Your task to perform on an android device: open app "TextNow: Call + Text Unlimited" (install if not already installed) and go to login screen Image 0: 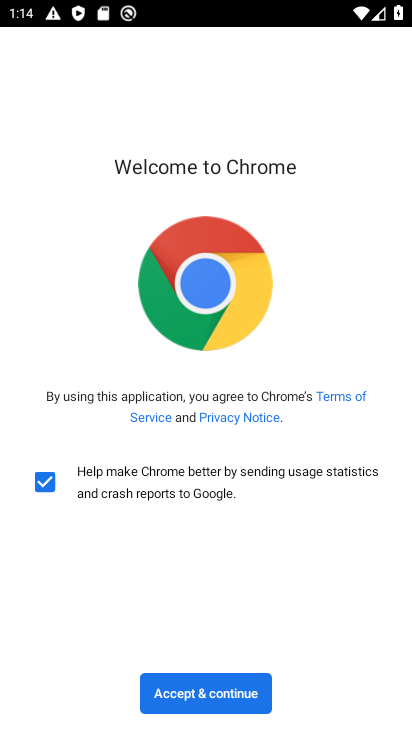
Step 0: click (199, 695)
Your task to perform on an android device: open app "TextNow: Call + Text Unlimited" (install if not already installed) and go to login screen Image 1: 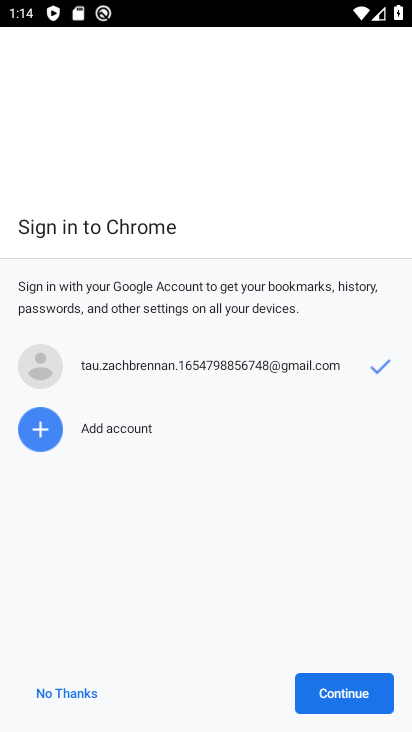
Step 1: click (345, 692)
Your task to perform on an android device: open app "TextNow: Call + Text Unlimited" (install if not already installed) and go to login screen Image 2: 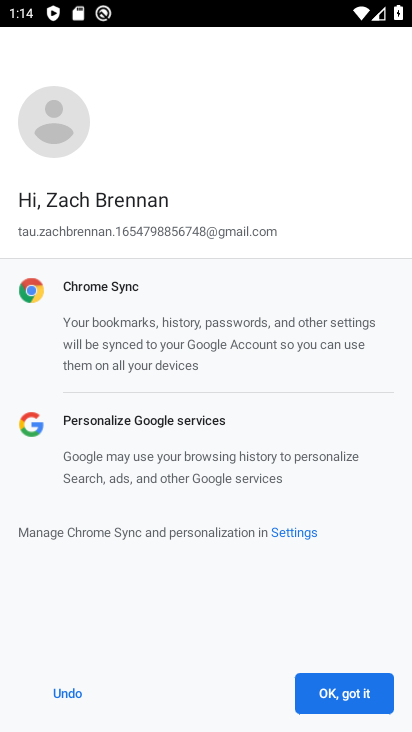
Step 2: click (345, 692)
Your task to perform on an android device: open app "TextNow: Call + Text Unlimited" (install if not already installed) and go to login screen Image 3: 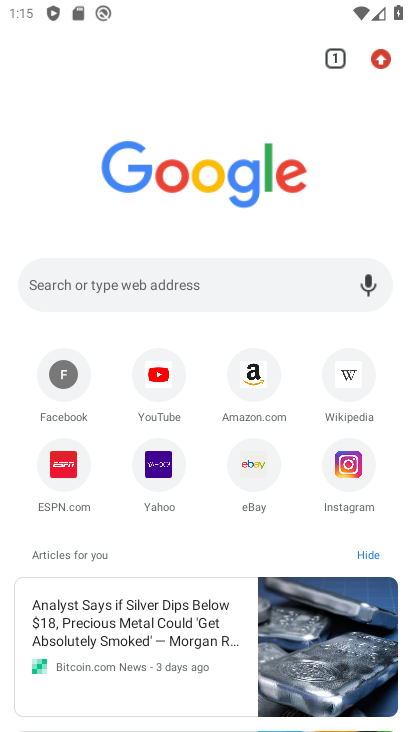
Step 3: press home button
Your task to perform on an android device: open app "TextNow: Call + Text Unlimited" (install if not already installed) and go to login screen Image 4: 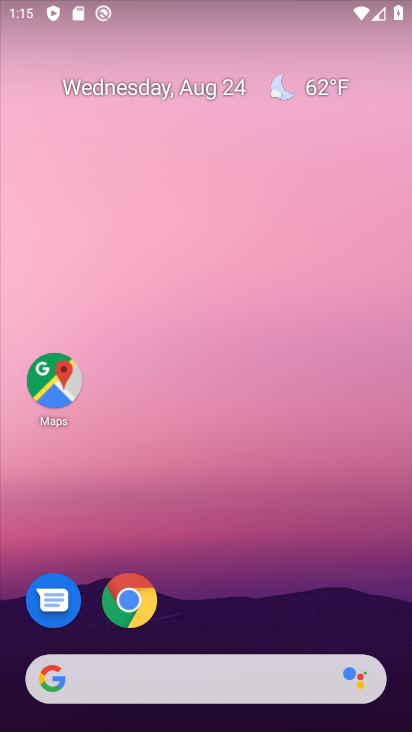
Step 4: drag from (243, 617) to (254, 47)
Your task to perform on an android device: open app "TextNow: Call + Text Unlimited" (install if not already installed) and go to login screen Image 5: 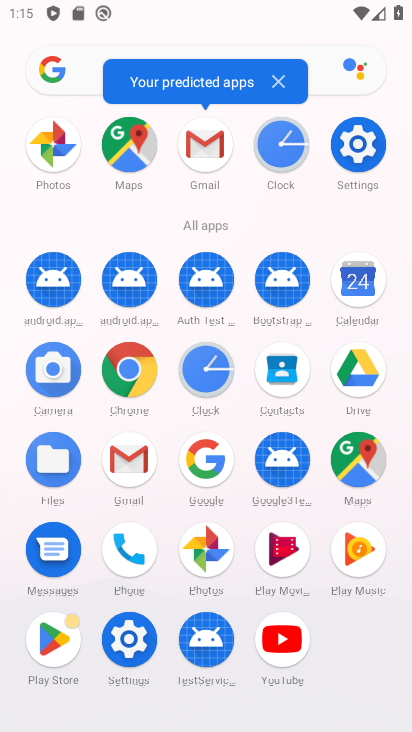
Step 5: click (48, 631)
Your task to perform on an android device: open app "TextNow: Call + Text Unlimited" (install if not already installed) and go to login screen Image 6: 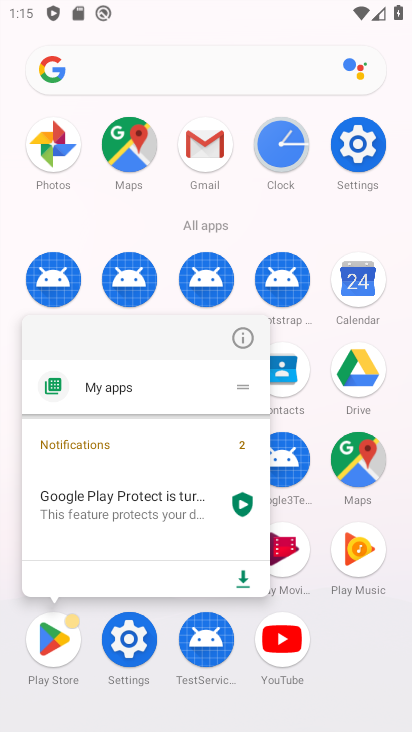
Step 6: click (46, 632)
Your task to perform on an android device: open app "TextNow: Call + Text Unlimited" (install if not already installed) and go to login screen Image 7: 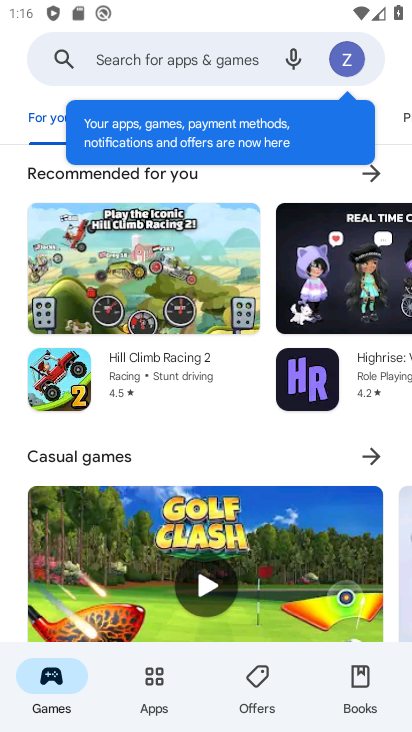
Step 7: click (186, 57)
Your task to perform on an android device: open app "TextNow: Call + Text Unlimited" (install if not already installed) and go to login screen Image 8: 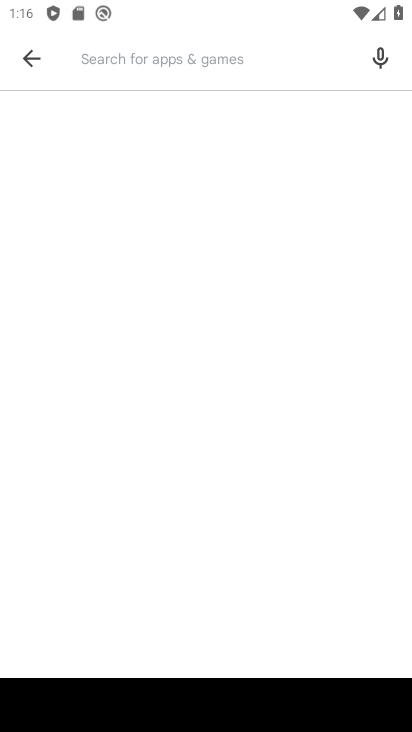
Step 8: type "TextNow: Call + Text Unlimited"
Your task to perform on an android device: open app "TextNow: Call + Text Unlimited" (install if not already installed) and go to login screen Image 9: 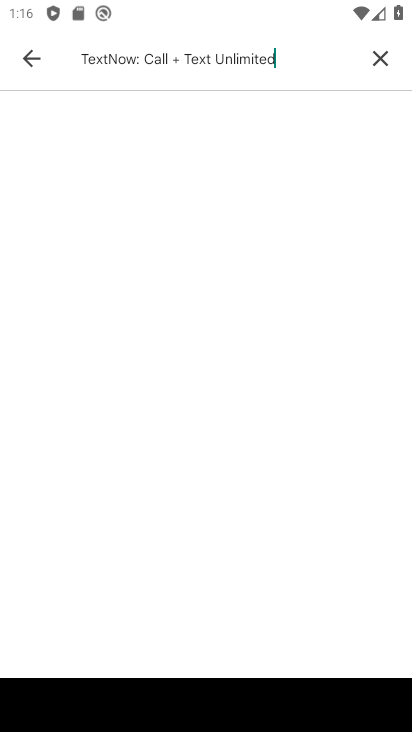
Step 9: type ""
Your task to perform on an android device: open app "TextNow: Call + Text Unlimited" (install if not already installed) and go to login screen Image 10: 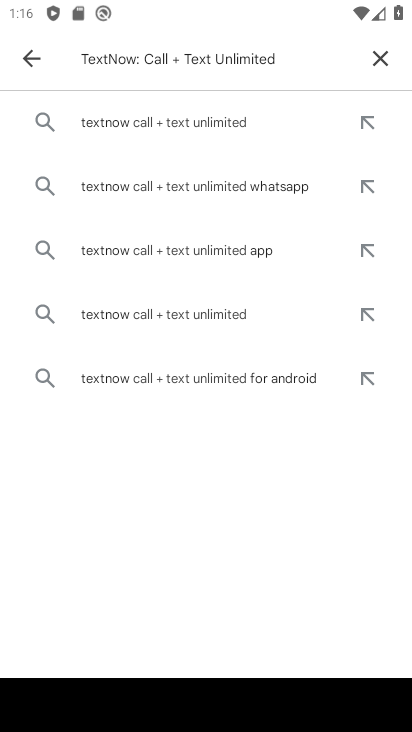
Step 10: click (175, 133)
Your task to perform on an android device: open app "TextNow: Call + Text Unlimited" (install if not already installed) and go to login screen Image 11: 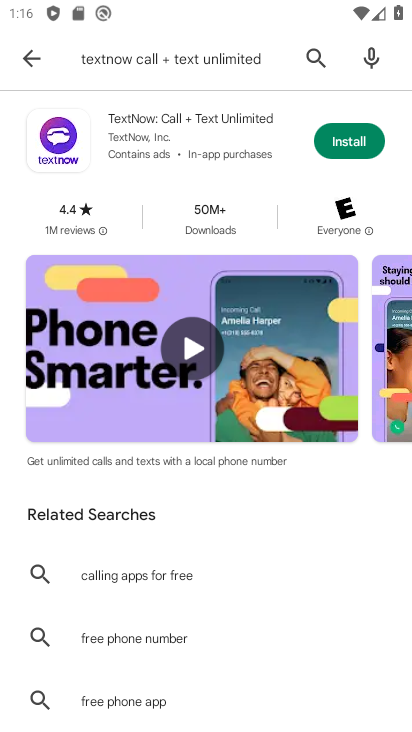
Step 11: click (354, 141)
Your task to perform on an android device: open app "TextNow: Call + Text Unlimited" (install if not already installed) and go to login screen Image 12: 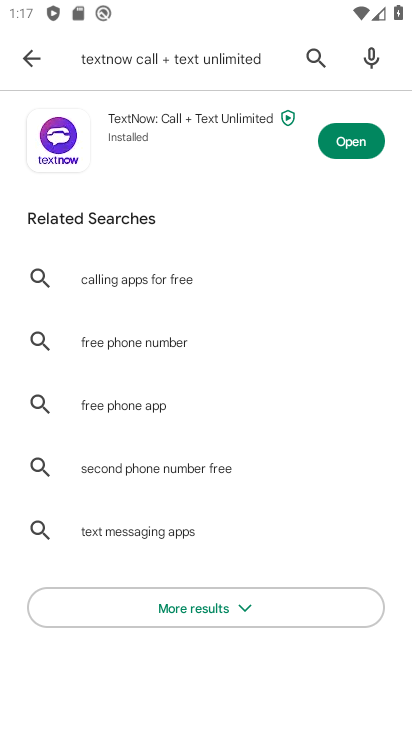
Step 12: click (346, 139)
Your task to perform on an android device: open app "TextNow: Call + Text Unlimited" (install if not already installed) and go to login screen Image 13: 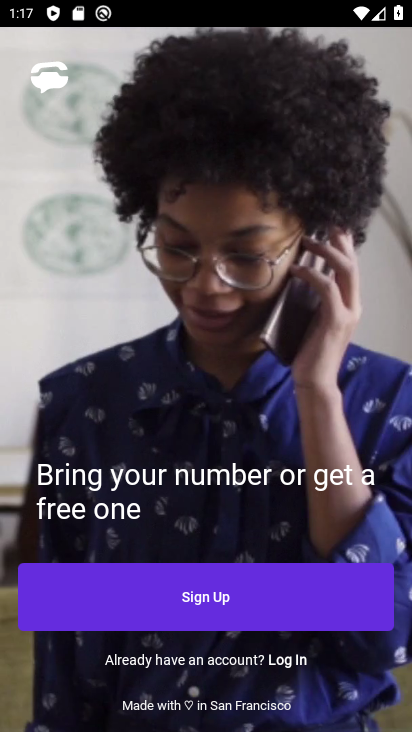
Step 13: click (293, 662)
Your task to perform on an android device: open app "TextNow: Call + Text Unlimited" (install if not already installed) and go to login screen Image 14: 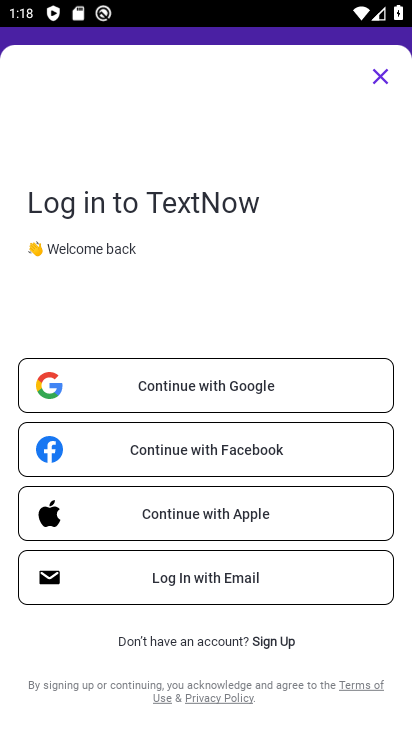
Step 14: click (205, 389)
Your task to perform on an android device: open app "TextNow: Call + Text Unlimited" (install if not already installed) and go to login screen Image 15: 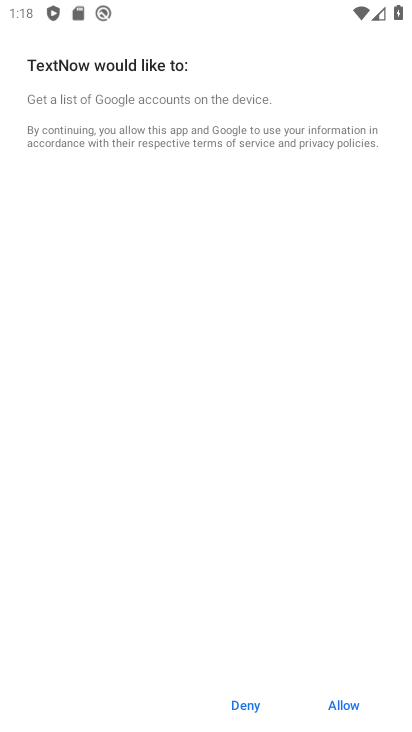
Step 15: click (332, 707)
Your task to perform on an android device: open app "TextNow: Call + Text Unlimited" (install if not already installed) and go to login screen Image 16: 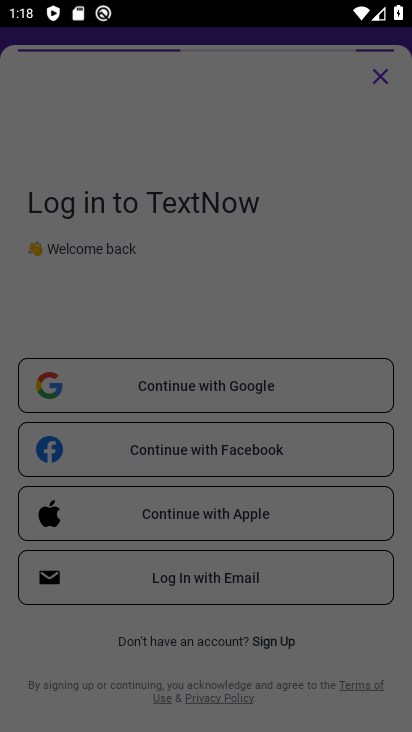
Step 16: click (241, 396)
Your task to perform on an android device: open app "TextNow: Call + Text Unlimited" (install if not already installed) and go to login screen Image 17: 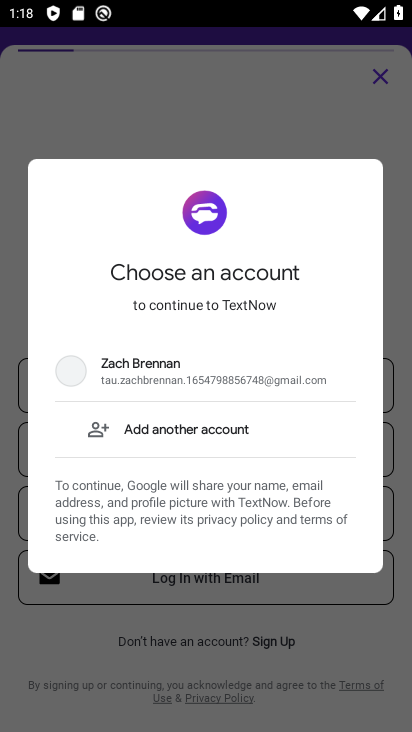
Step 17: click (175, 378)
Your task to perform on an android device: open app "TextNow: Call + Text Unlimited" (install if not already installed) and go to login screen Image 18: 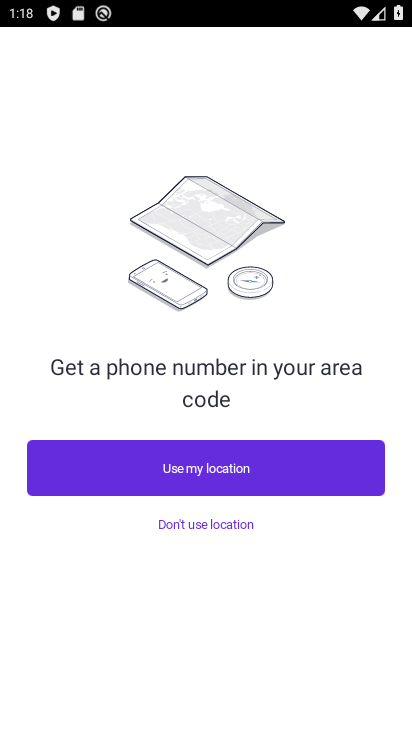
Step 18: click (212, 519)
Your task to perform on an android device: open app "TextNow: Call + Text Unlimited" (install if not already installed) and go to login screen Image 19: 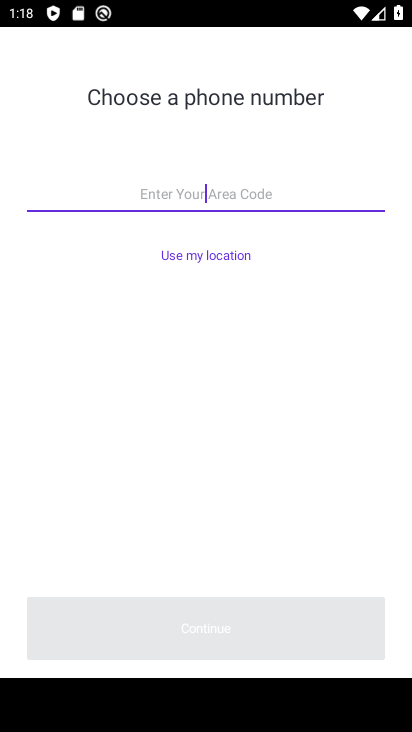
Step 19: click (210, 259)
Your task to perform on an android device: open app "TextNow: Call + Text Unlimited" (install if not already installed) and go to login screen Image 20: 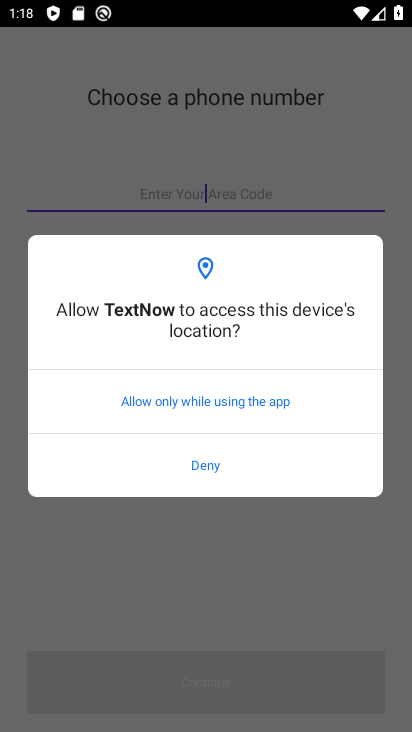
Step 20: click (224, 380)
Your task to perform on an android device: open app "TextNow: Call + Text Unlimited" (install if not already installed) and go to login screen Image 21: 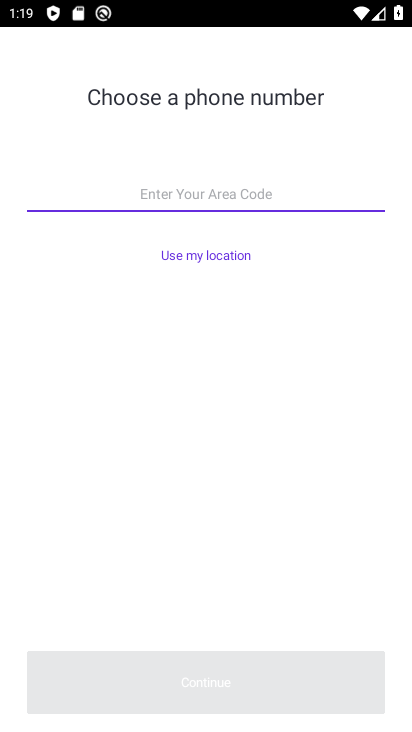
Step 21: task complete